Your task to perform on an android device: turn off wifi Image 0: 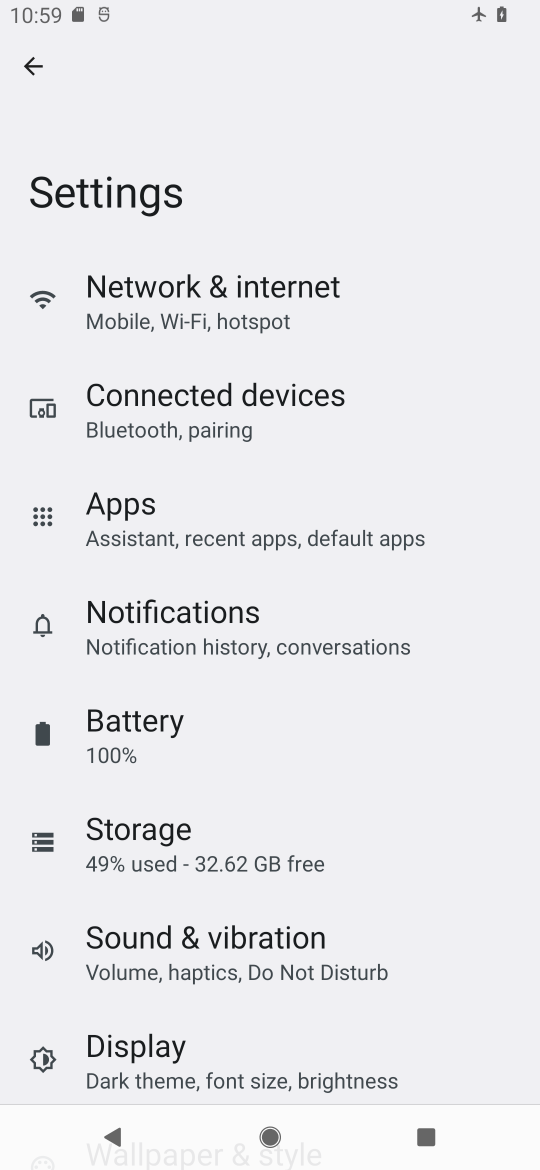
Step 0: click (120, 292)
Your task to perform on an android device: turn off wifi Image 1: 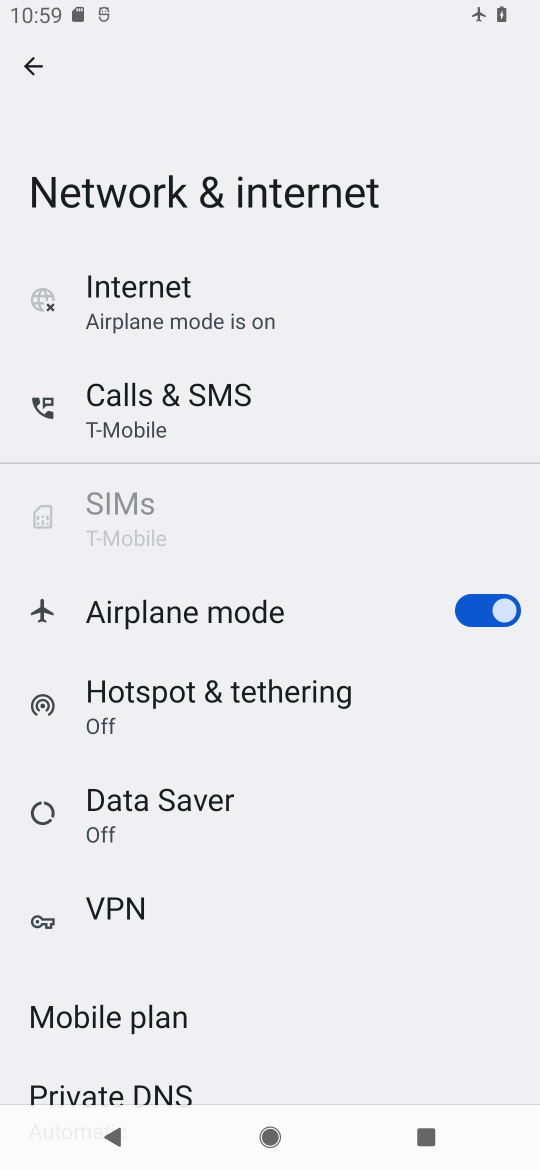
Step 1: click (180, 303)
Your task to perform on an android device: turn off wifi Image 2: 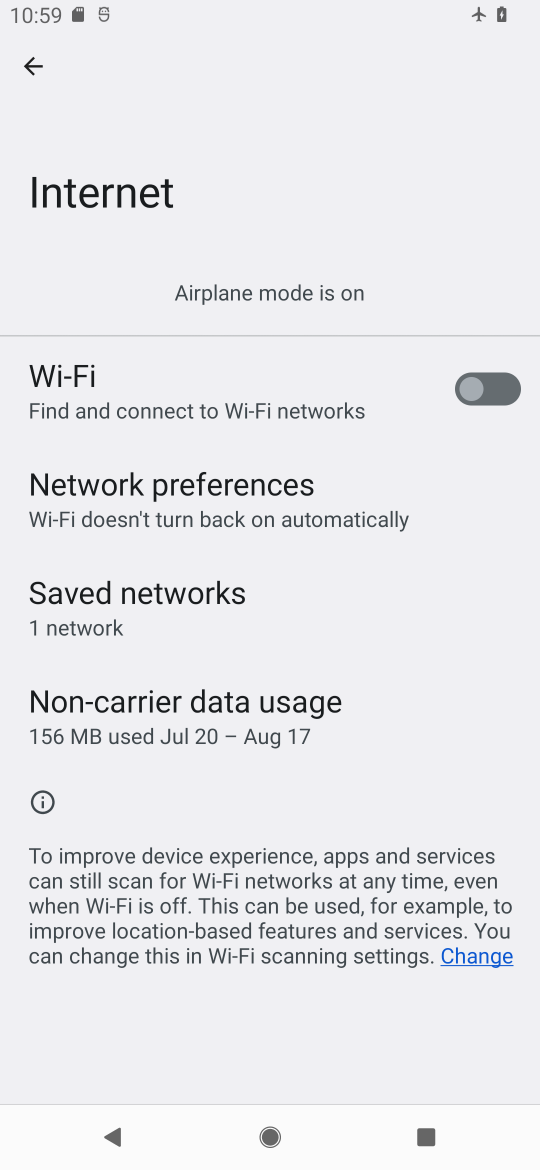
Step 2: task complete